Your task to perform on an android device: turn notification dots off Image 0: 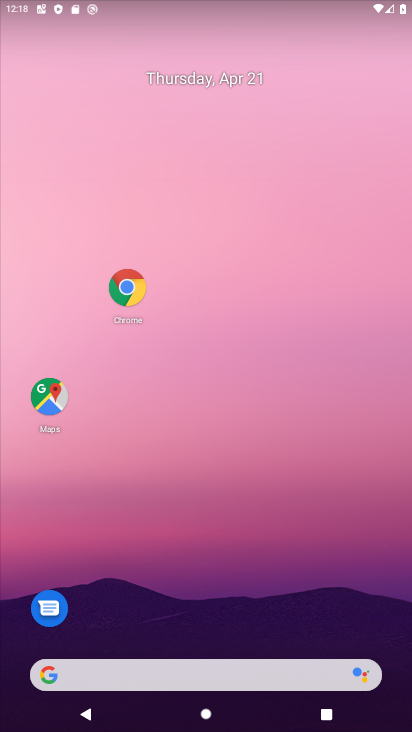
Step 0: drag from (179, 377) to (122, 145)
Your task to perform on an android device: turn notification dots off Image 1: 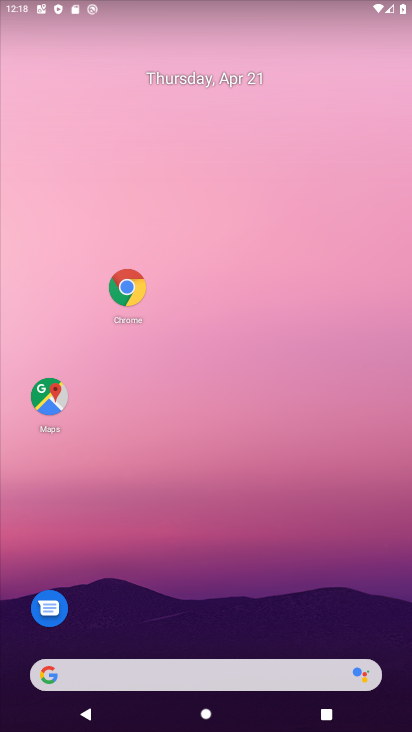
Step 1: drag from (274, 544) to (224, 54)
Your task to perform on an android device: turn notification dots off Image 2: 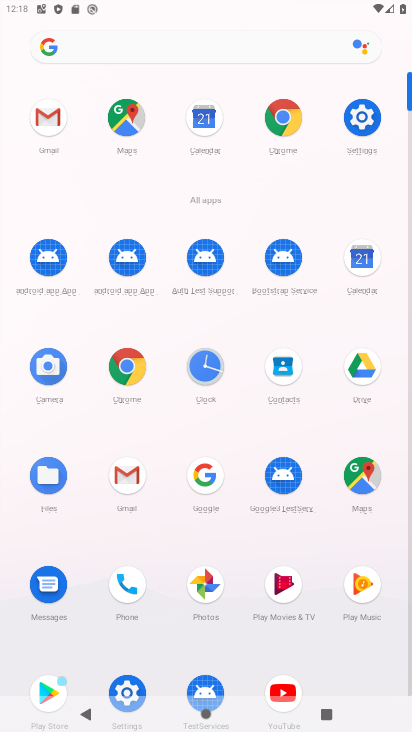
Step 2: click (360, 116)
Your task to perform on an android device: turn notification dots off Image 3: 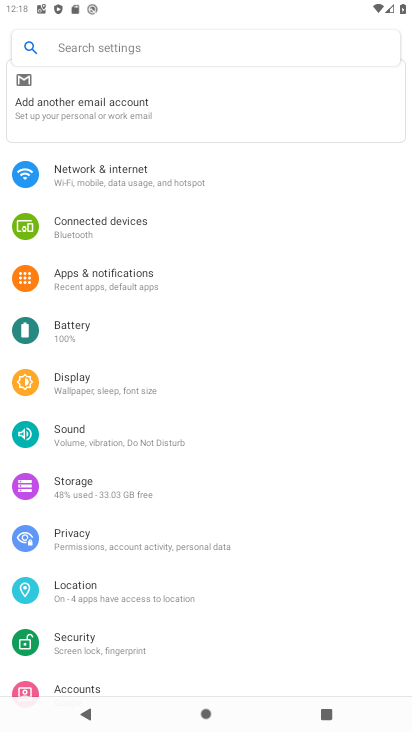
Step 3: click (72, 282)
Your task to perform on an android device: turn notification dots off Image 4: 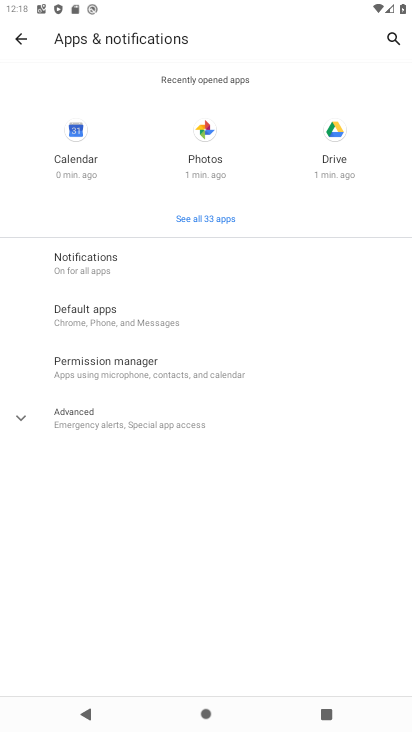
Step 4: click (99, 267)
Your task to perform on an android device: turn notification dots off Image 5: 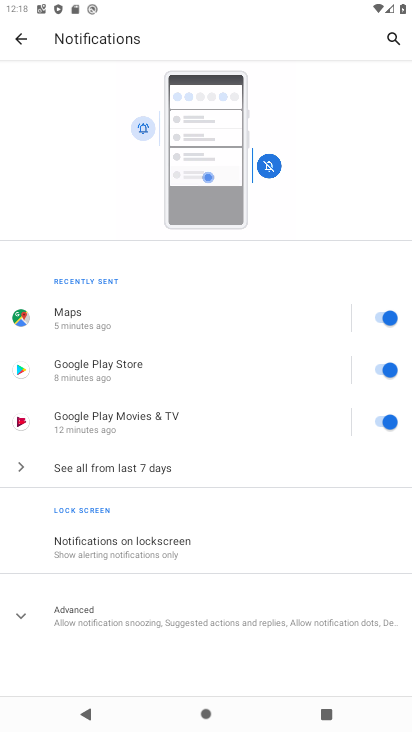
Step 5: click (100, 622)
Your task to perform on an android device: turn notification dots off Image 6: 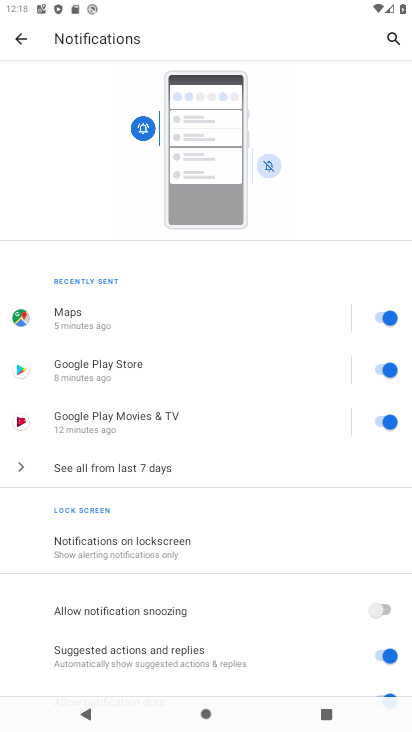
Step 6: drag from (111, 591) to (162, 325)
Your task to perform on an android device: turn notification dots off Image 7: 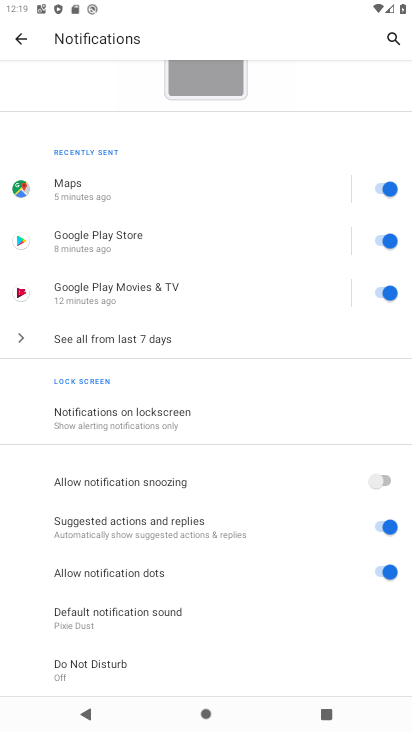
Step 7: click (391, 570)
Your task to perform on an android device: turn notification dots off Image 8: 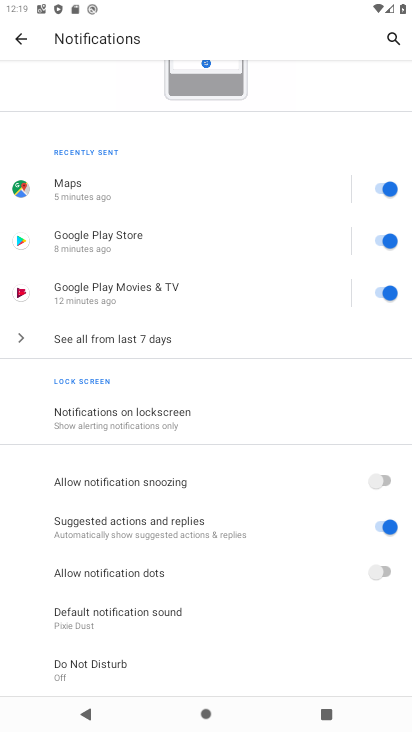
Step 8: task complete